Your task to perform on an android device: Is it going to rain today? Image 0: 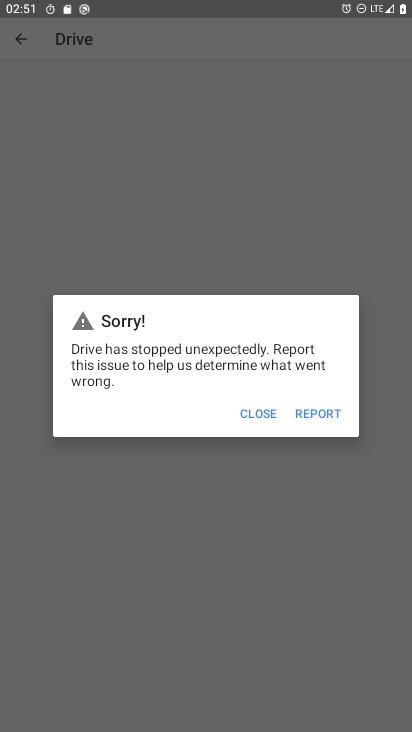
Step 0: press home button
Your task to perform on an android device: Is it going to rain today? Image 1: 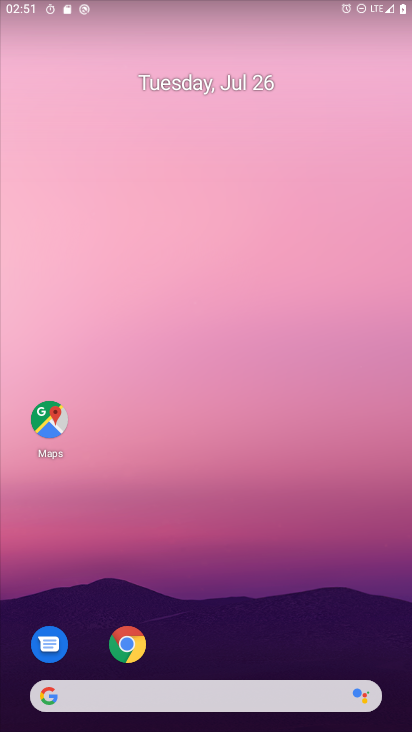
Step 1: click (184, 688)
Your task to perform on an android device: Is it going to rain today? Image 2: 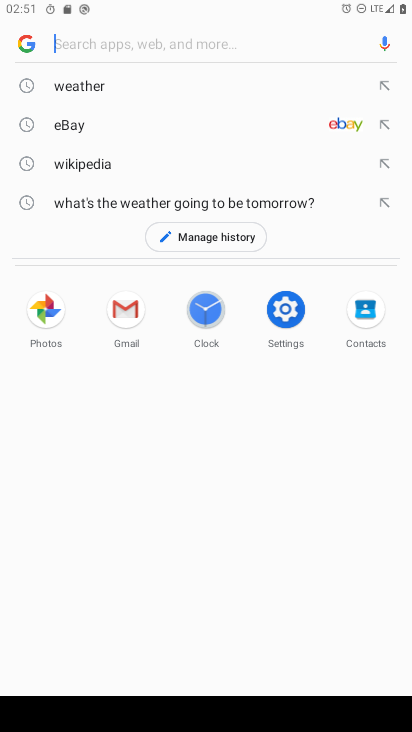
Step 2: click (92, 88)
Your task to perform on an android device: Is it going to rain today? Image 3: 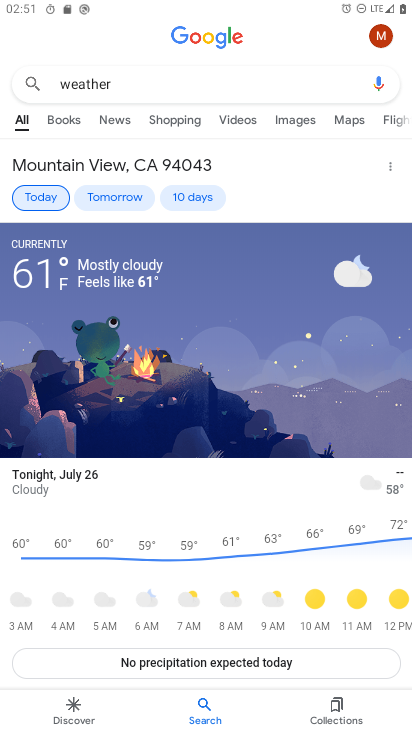
Step 3: click (24, 192)
Your task to perform on an android device: Is it going to rain today? Image 4: 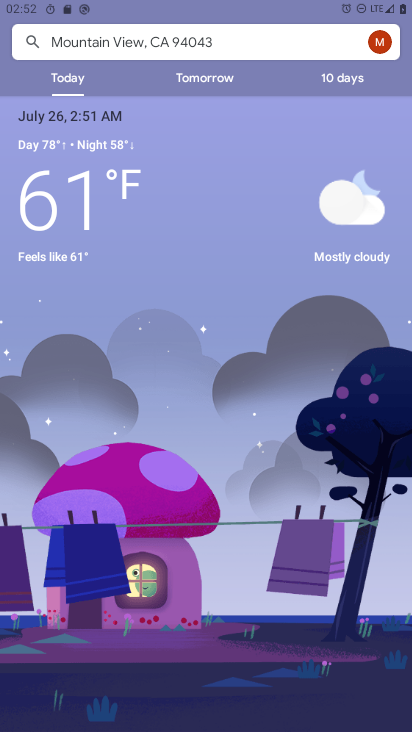
Step 4: task complete